Your task to perform on an android device: delete a single message in the gmail app Image 0: 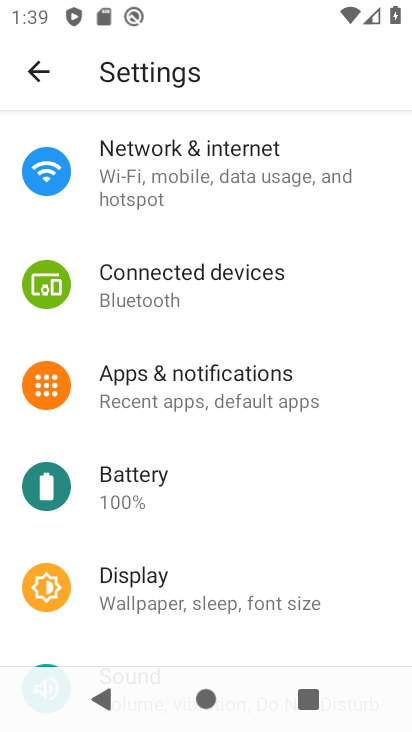
Step 0: press home button
Your task to perform on an android device: delete a single message in the gmail app Image 1: 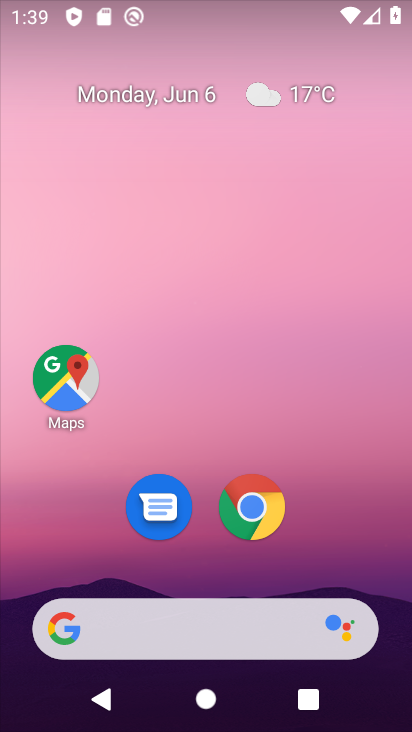
Step 1: drag from (384, 570) to (381, 296)
Your task to perform on an android device: delete a single message in the gmail app Image 2: 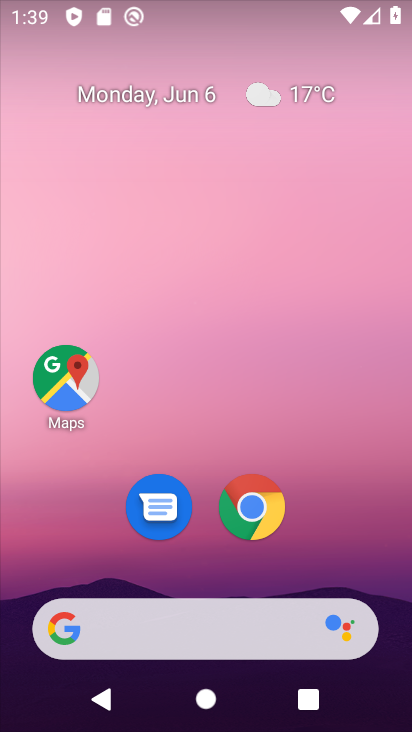
Step 2: drag from (411, 606) to (242, 102)
Your task to perform on an android device: delete a single message in the gmail app Image 3: 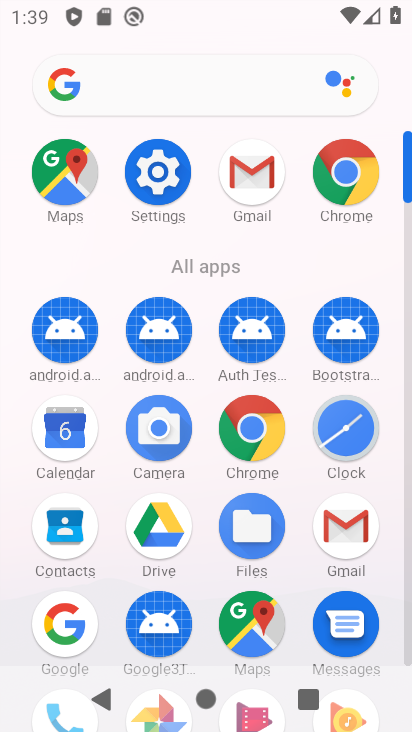
Step 3: click (273, 185)
Your task to perform on an android device: delete a single message in the gmail app Image 4: 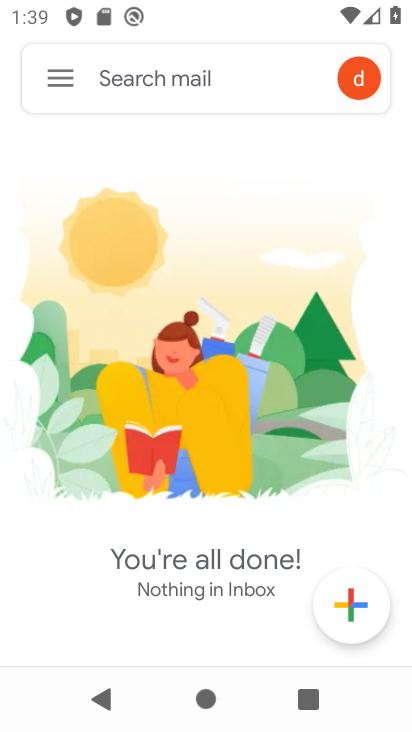
Step 4: click (59, 70)
Your task to perform on an android device: delete a single message in the gmail app Image 5: 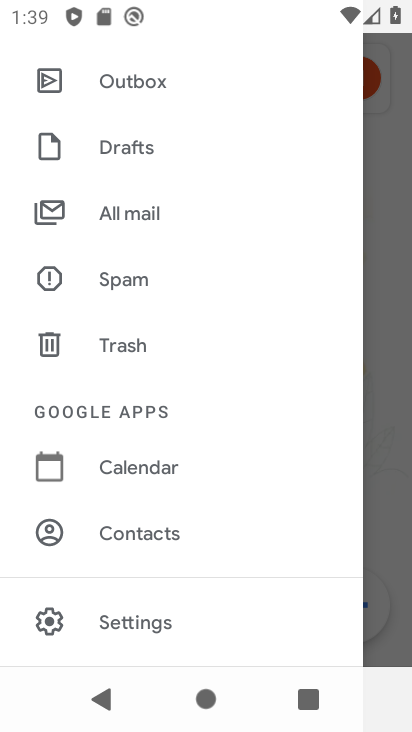
Step 5: click (144, 214)
Your task to perform on an android device: delete a single message in the gmail app Image 6: 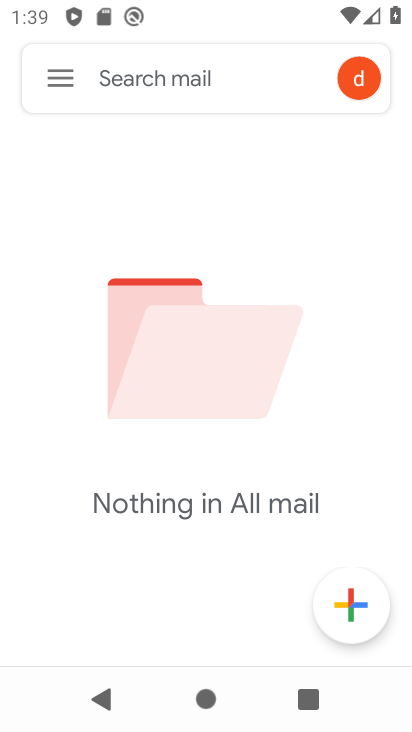
Step 6: task complete